Your task to perform on an android device: turn off notifications in google photos Image 0: 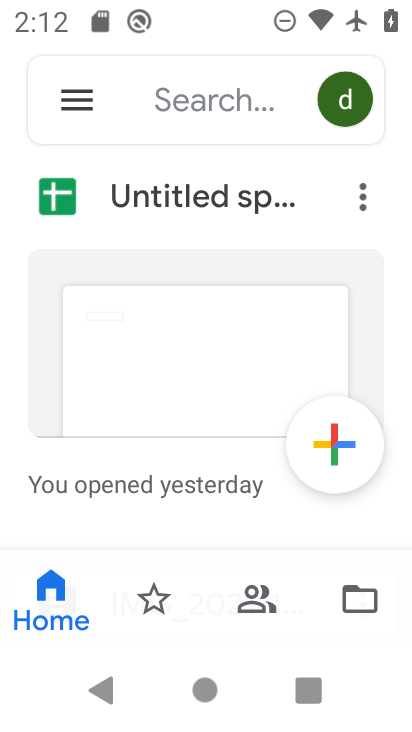
Step 0: press home button
Your task to perform on an android device: turn off notifications in google photos Image 1: 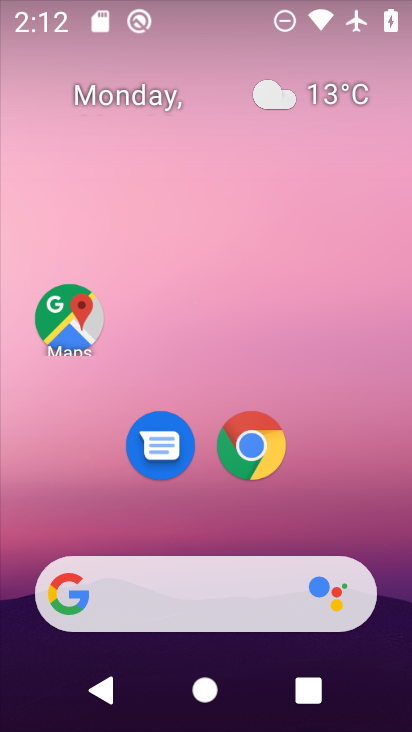
Step 1: drag from (380, 610) to (378, 2)
Your task to perform on an android device: turn off notifications in google photos Image 2: 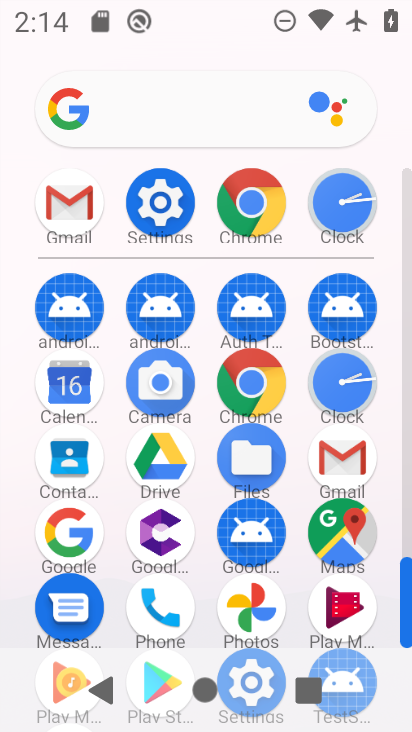
Step 2: click (257, 590)
Your task to perform on an android device: turn off notifications in google photos Image 3: 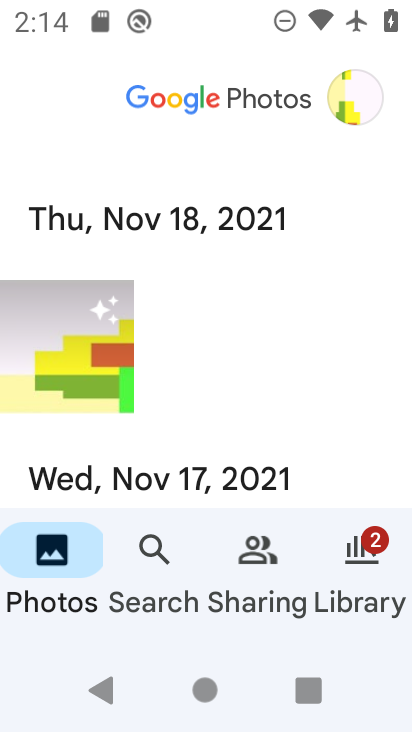
Step 3: click (362, 84)
Your task to perform on an android device: turn off notifications in google photos Image 4: 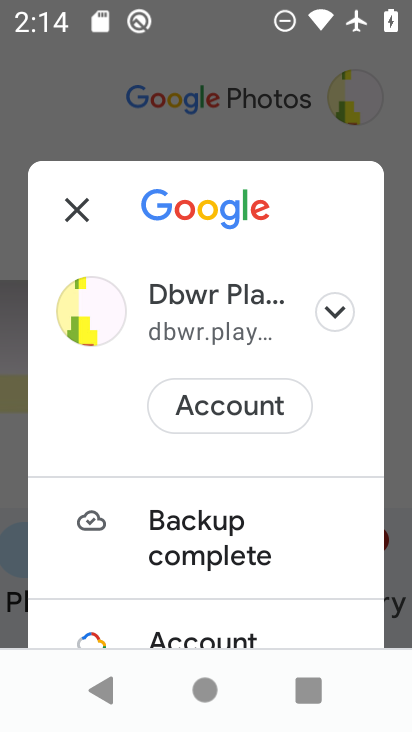
Step 4: drag from (217, 580) to (271, 220)
Your task to perform on an android device: turn off notifications in google photos Image 5: 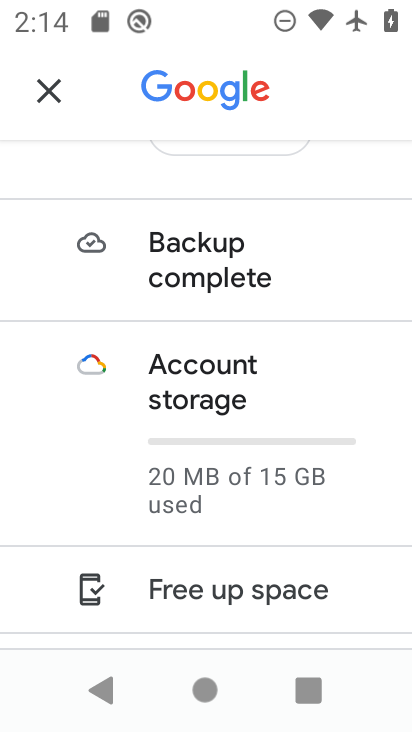
Step 5: drag from (222, 602) to (277, 244)
Your task to perform on an android device: turn off notifications in google photos Image 6: 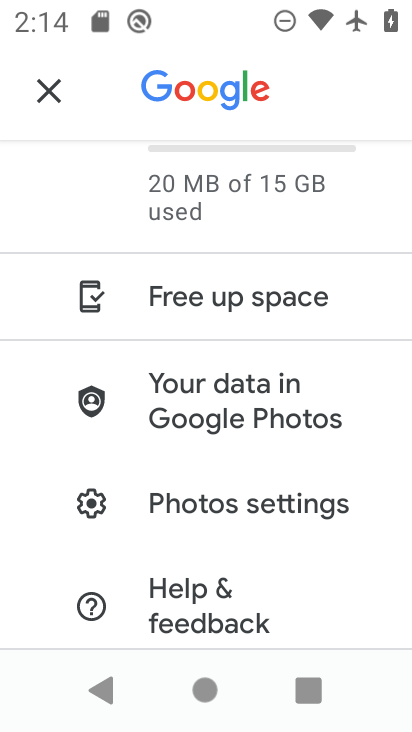
Step 6: click (234, 512)
Your task to perform on an android device: turn off notifications in google photos Image 7: 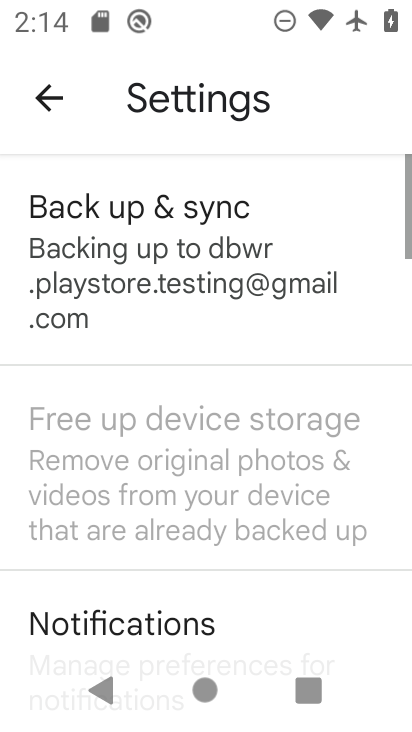
Step 7: click (192, 598)
Your task to perform on an android device: turn off notifications in google photos Image 8: 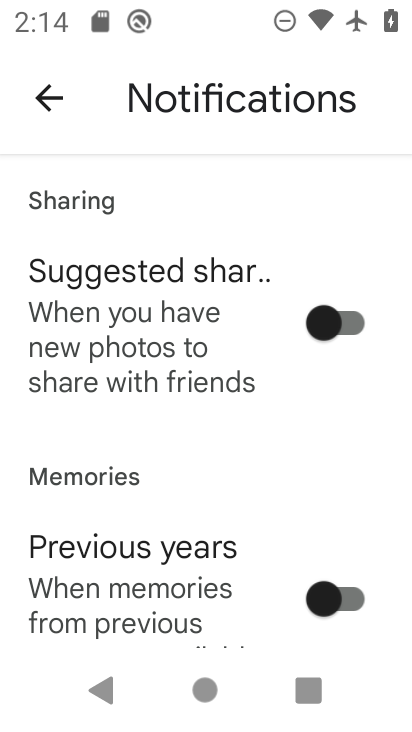
Step 8: task complete